Your task to perform on an android device: open wifi settings Image 0: 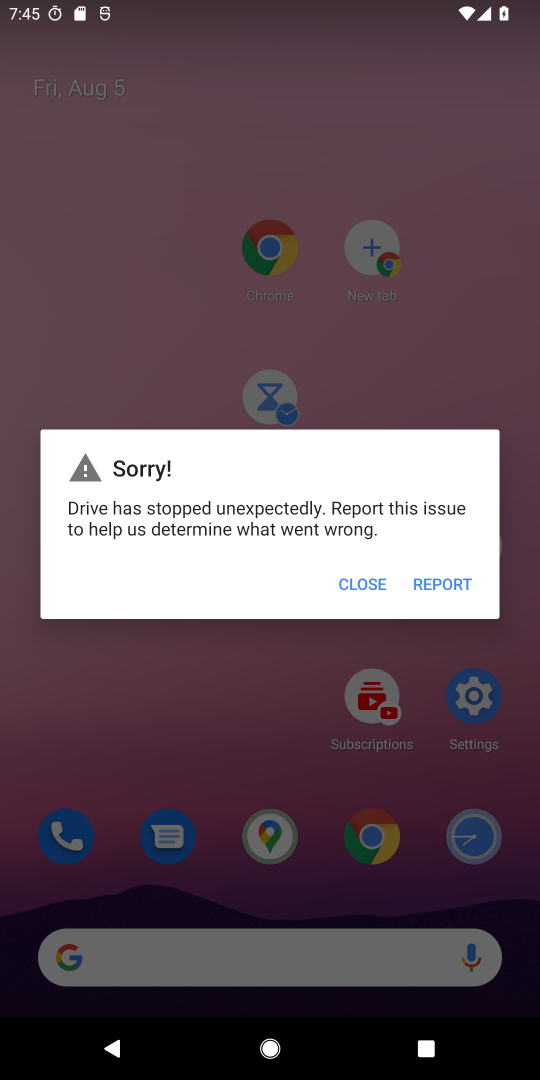
Step 0: click (349, 584)
Your task to perform on an android device: open wifi settings Image 1: 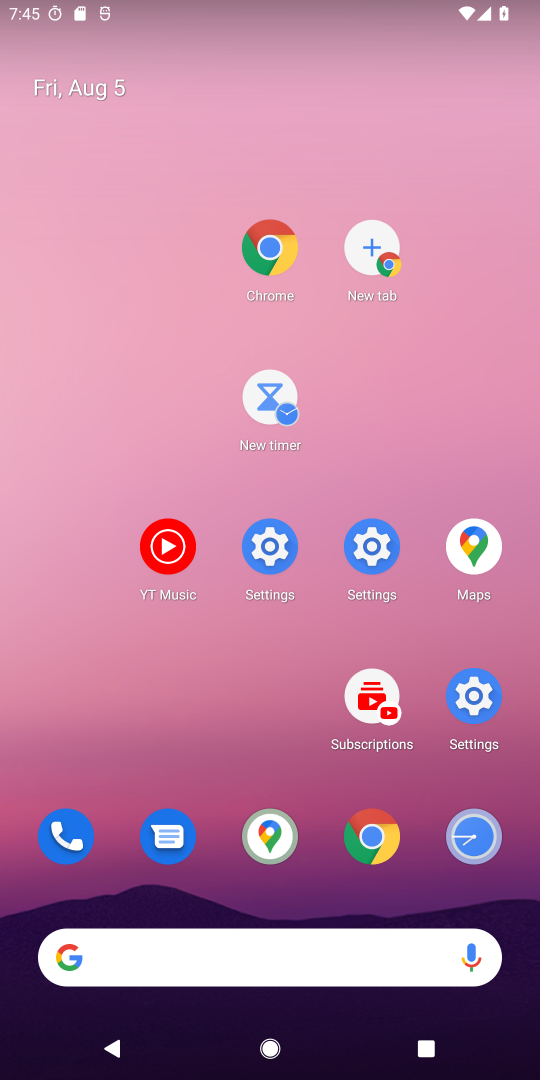
Step 1: drag from (236, 51) to (245, 323)
Your task to perform on an android device: open wifi settings Image 2: 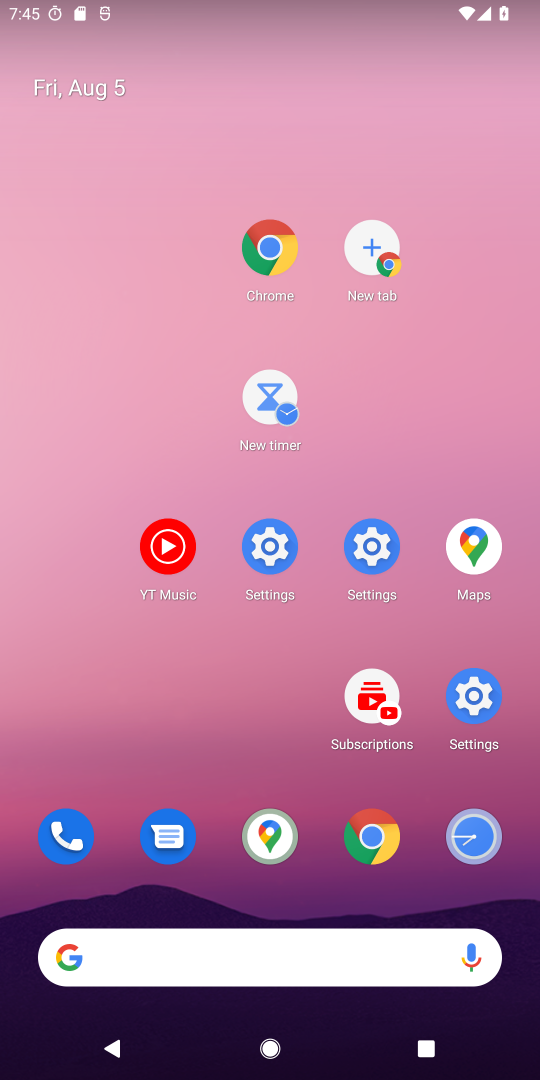
Step 2: drag from (378, 948) to (239, 262)
Your task to perform on an android device: open wifi settings Image 3: 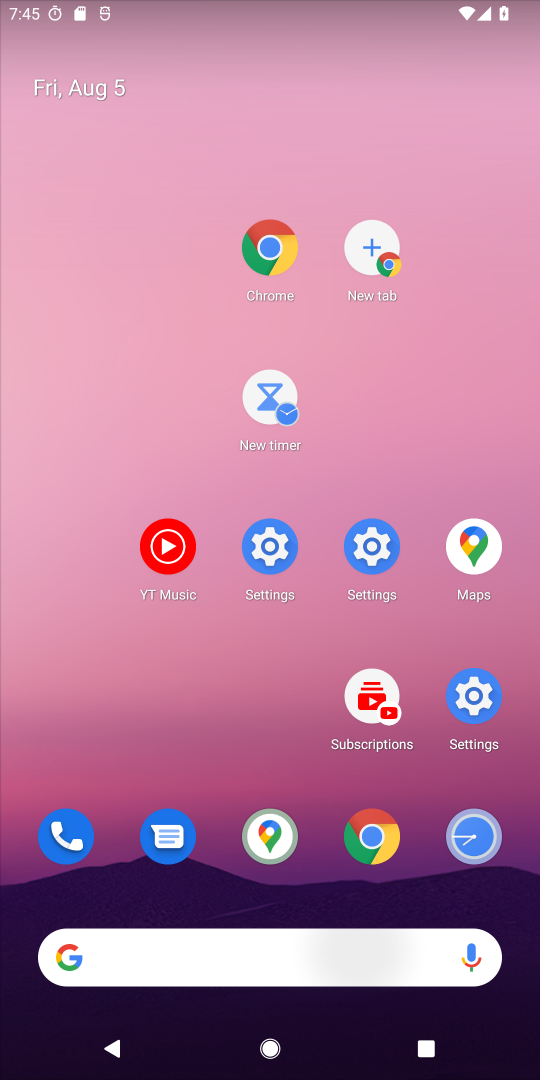
Step 3: drag from (249, 255) to (226, 106)
Your task to perform on an android device: open wifi settings Image 4: 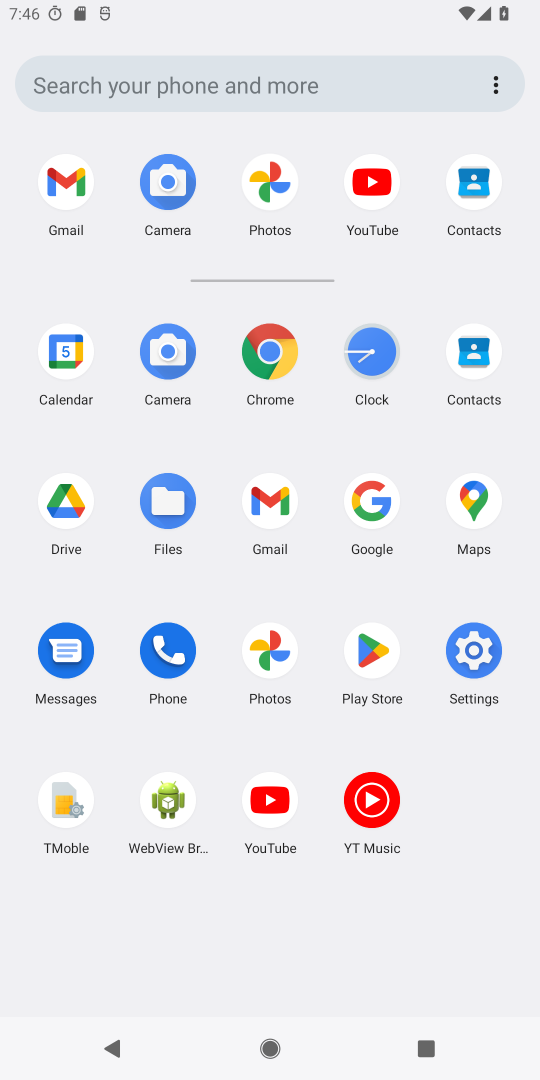
Step 4: drag from (302, 602) to (271, 197)
Your task to perform on an android device: open wifi settings Image 5: 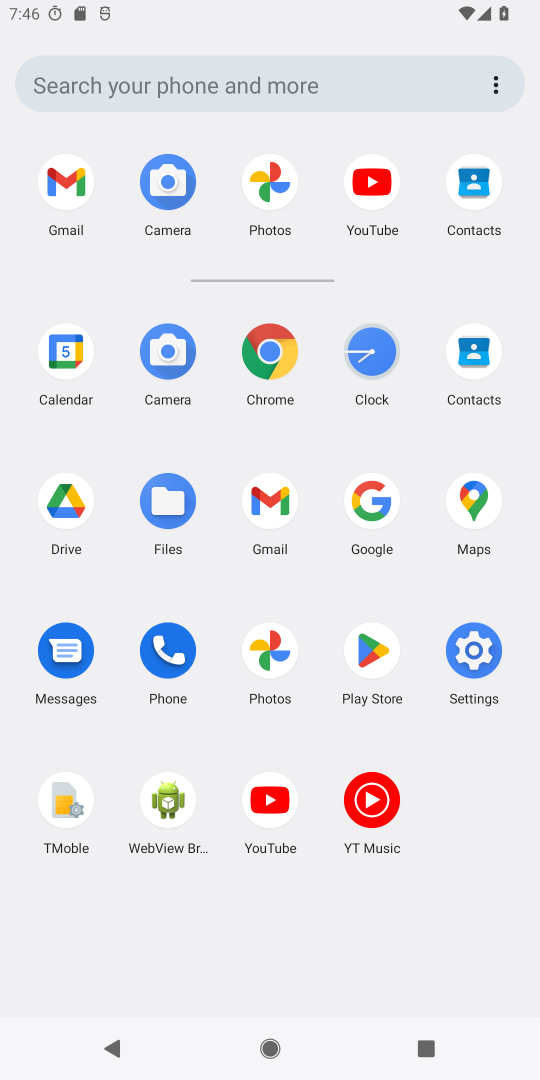
Step 5: click (482, 645)
Your task to perform on an android device: open wifi settings Image 6: 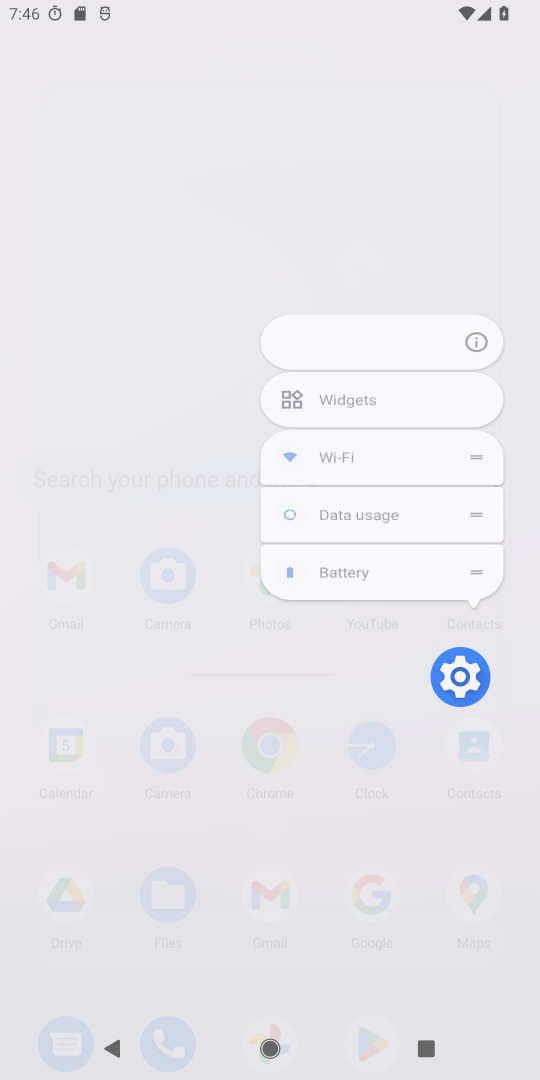
Step 6: click (467, 668)
Your task to perform on an android device: open wifi settings Image 7: 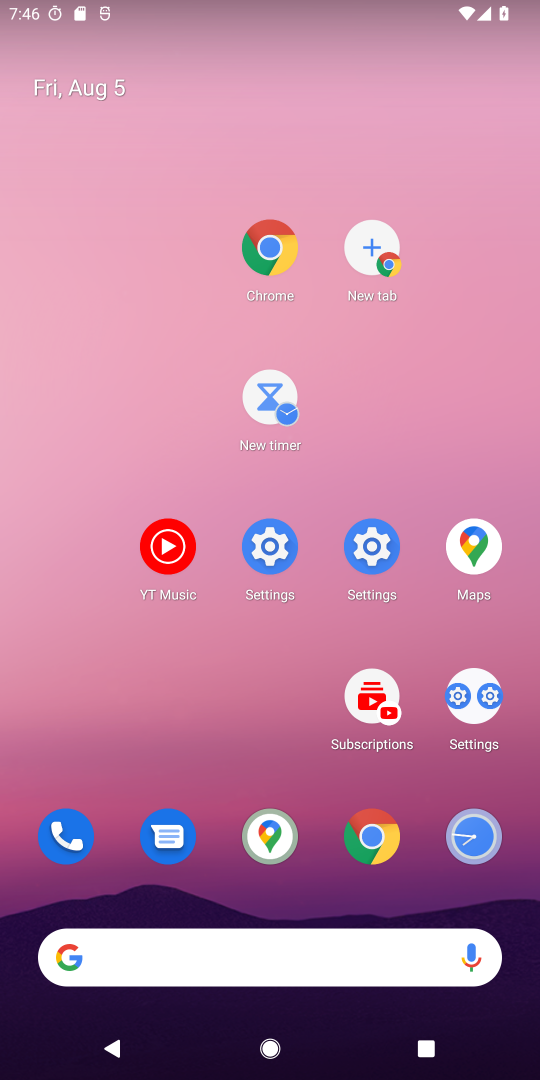
Step 7: drag from (441, 902) to (334, 165)
Your task to perform on an android device: open wifi settings Image 8: 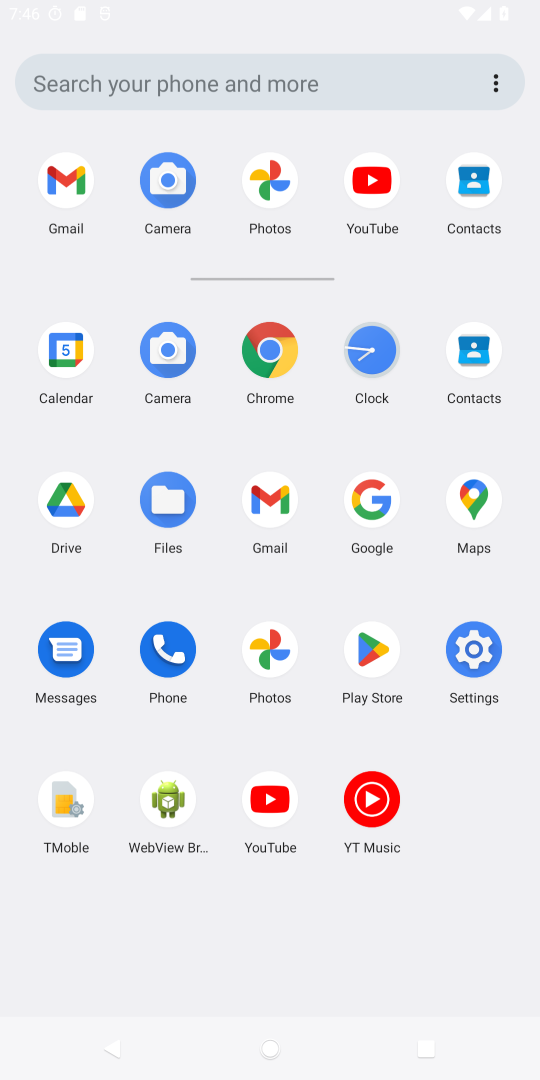
Step 8: drag from (367, 681) to (272, 137)
Your task to perform on an android device: open wifi settings Image 9: 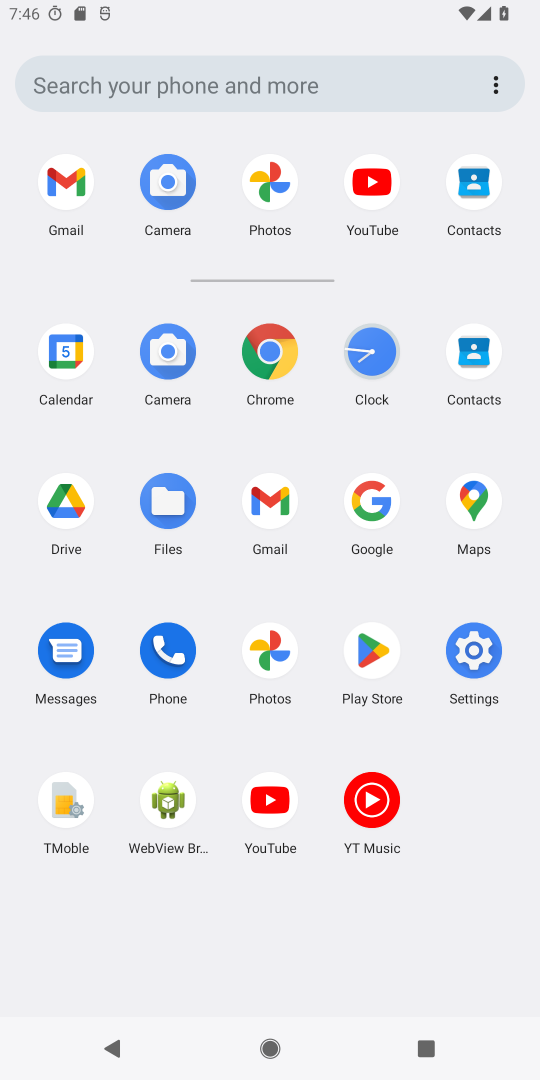
Step 9: drag from (330, 738) to (235, 195)
Your task to perform on an android device: open wifi settings Image 10: 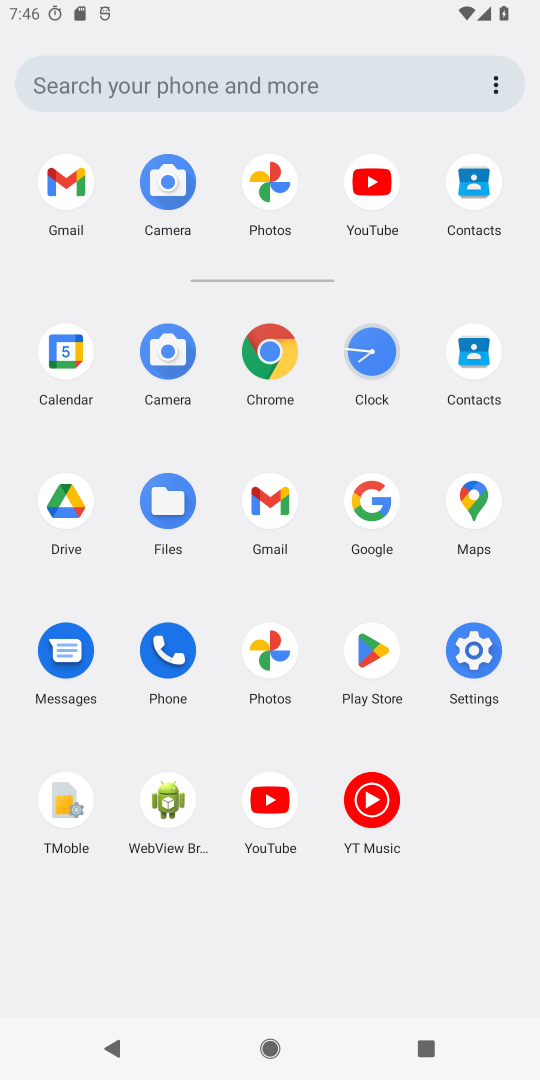
Step 10: click (474, 661)
Your task to perform on an android device: open wifi settings Image 11: 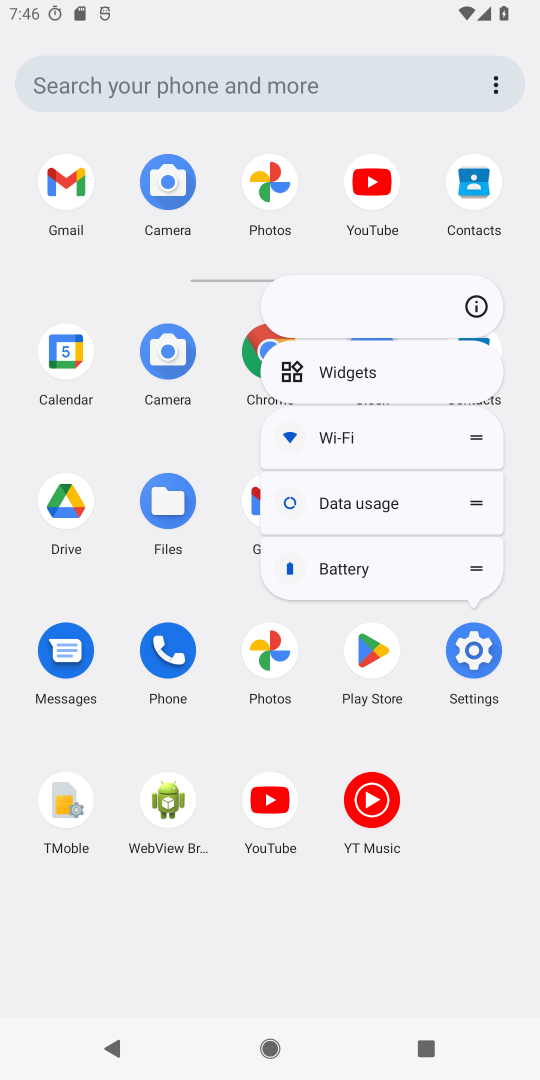
Step 11: click (474, 661)
Your task to perform on an android device: open wifi settings Image 12: 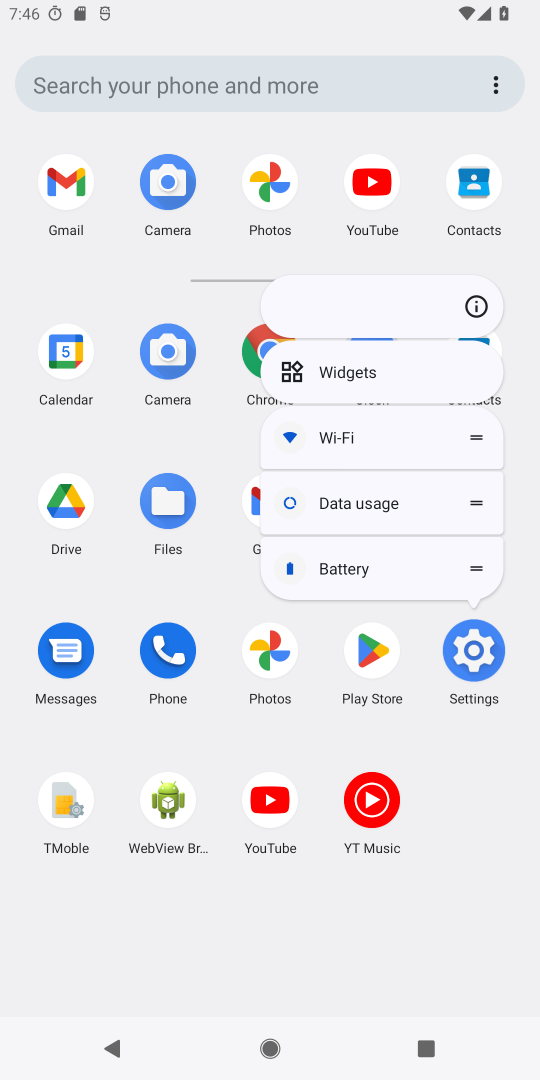
Step 12: click (474, 661)
Your task to perform on an android device: open wifi settings Image 13: 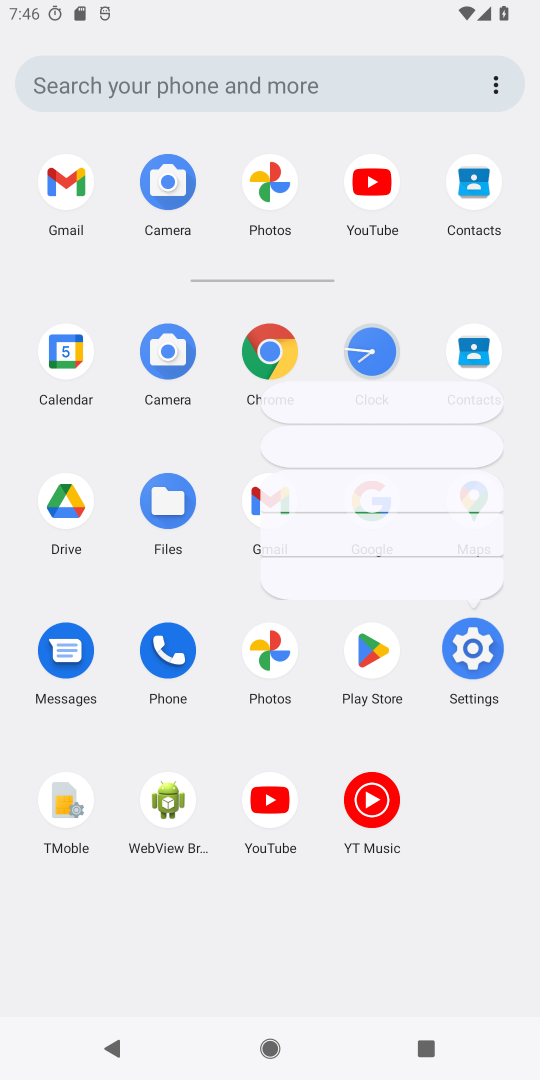
Step 13: click (473, 659)
Your task to perform on an android device: open wifi settings Image 14: 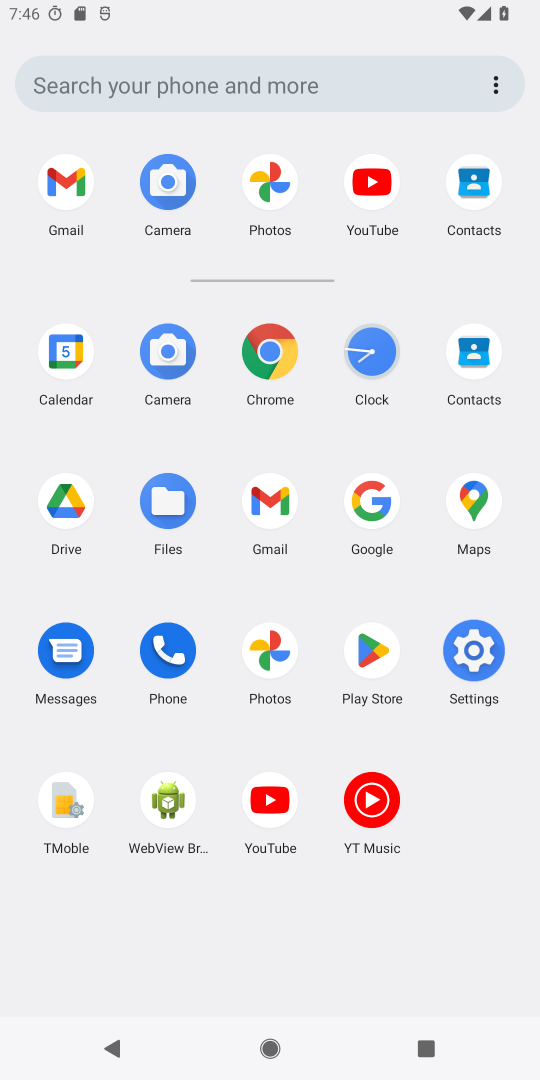
Step 14: click (473, 659)
Your task to perform on an android device: open wifi settings Image 15: 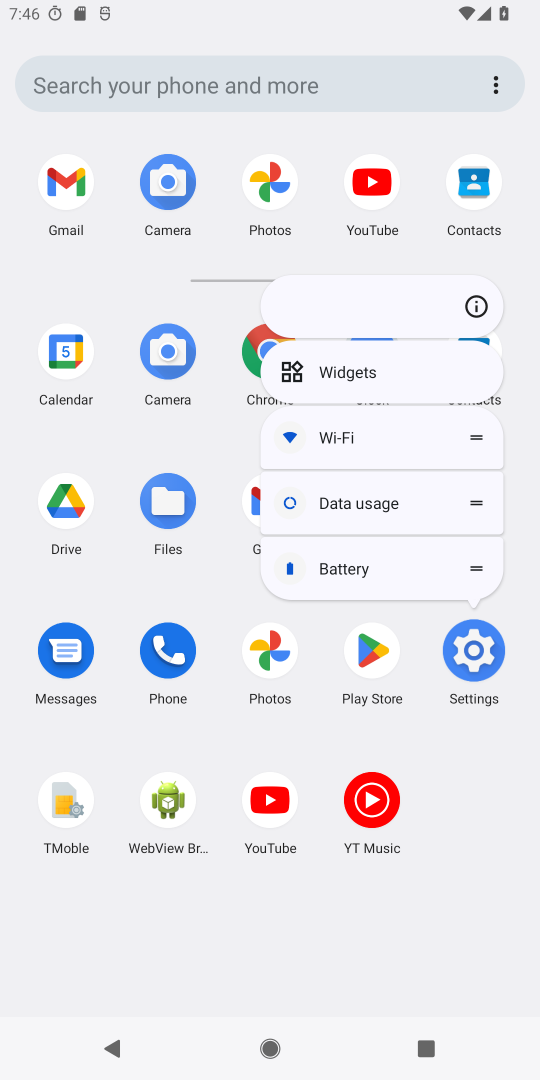
Step 15: click (473, 659)
Your task to perform on an android device: open wifi settings Image 16: 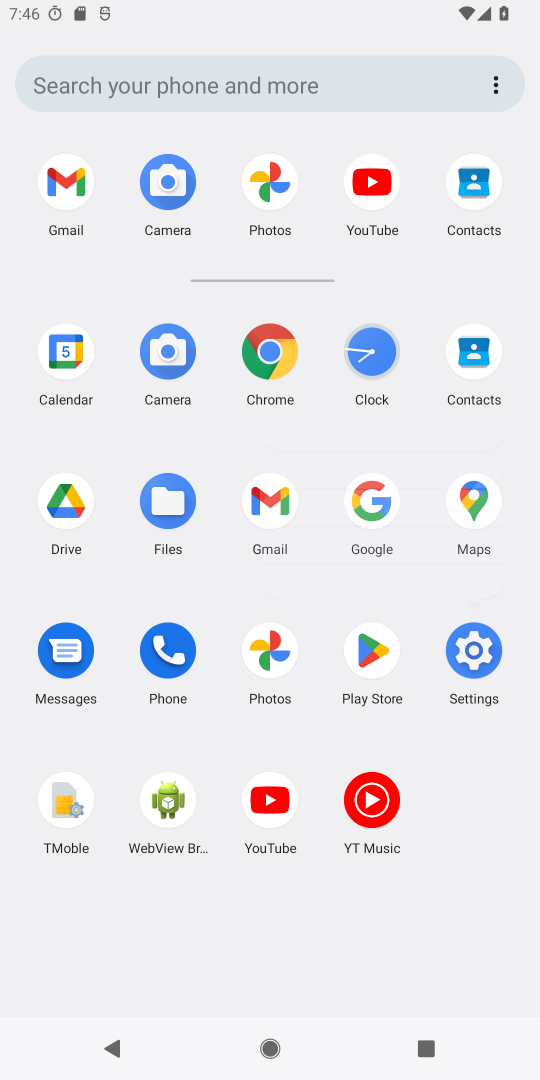
Step 16: click (473, 661)
Your task to perform on an android device: open wifi settings Image 17: 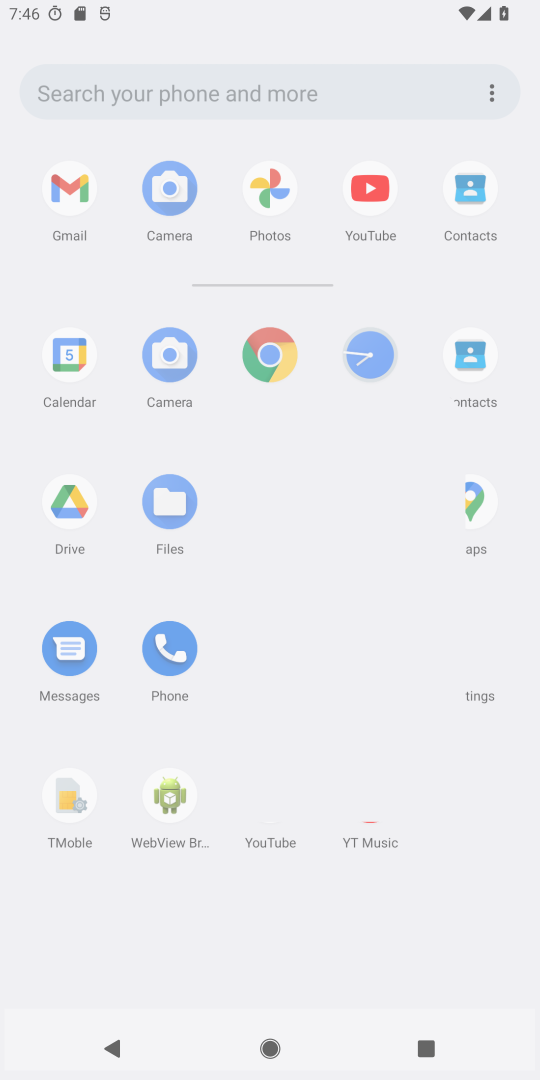
Step 17: click (478, 657)
Your task to perform on an android device: open wifi settings Image 18: 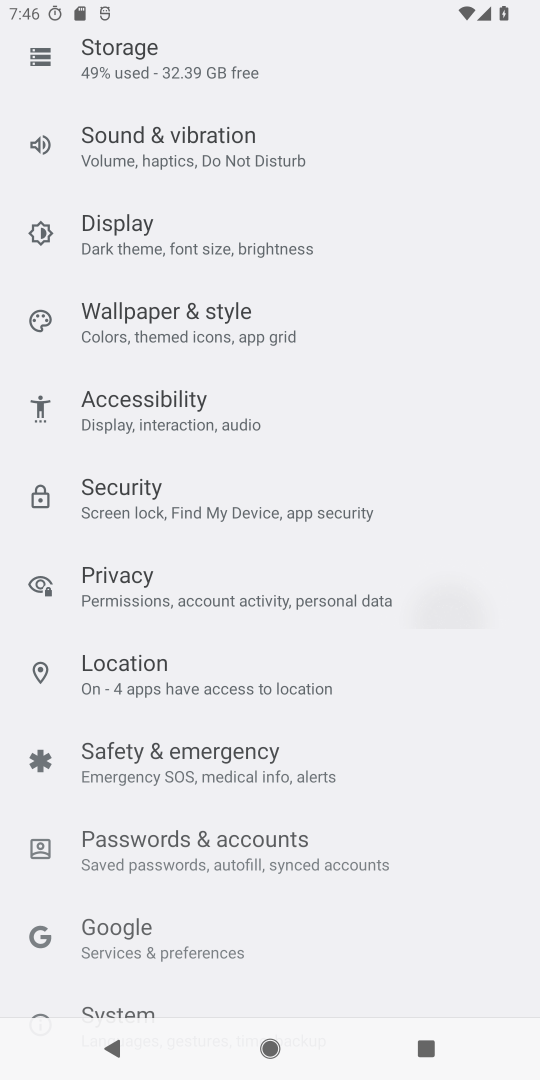
Step 18: click (478, 657)
Your task to perform on an android device: open wifi settings Image 19: 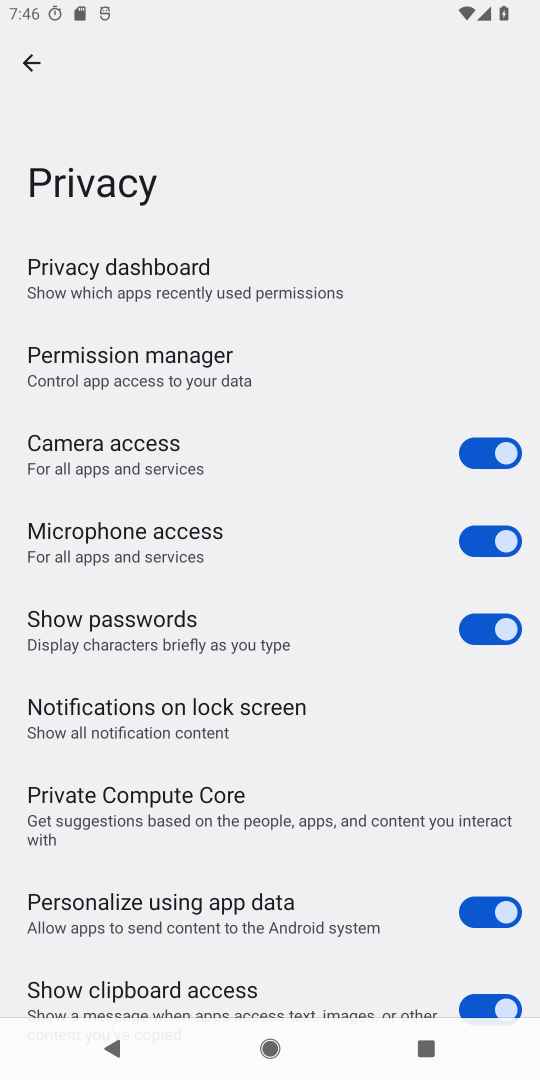
Step 19: click (24, 42)
Your task to perform on an android device: open wifi settings Image 20: 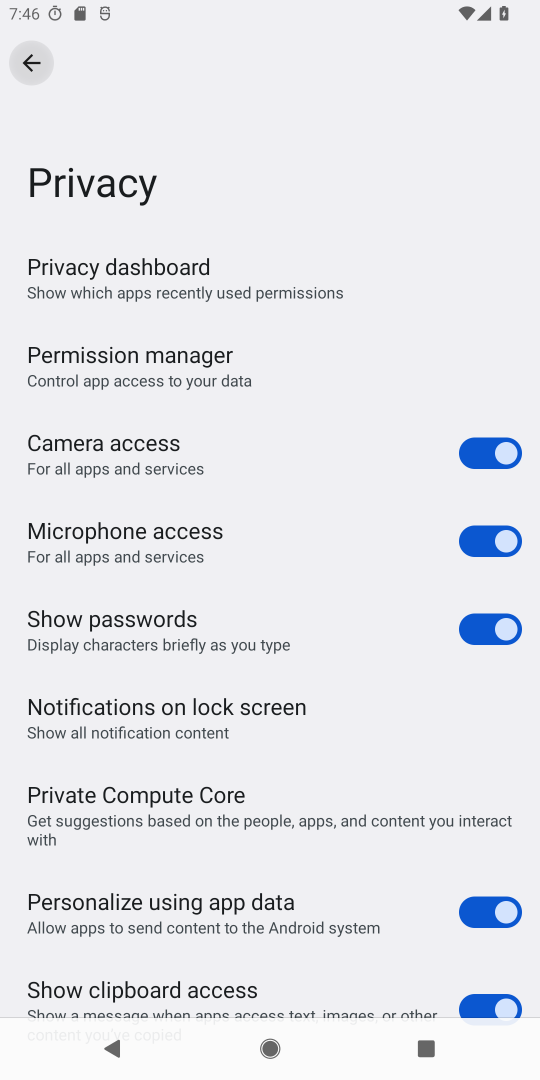
Step 20: click (14, 81)
Your task to perform on an android device: open wifi settings Image 21: 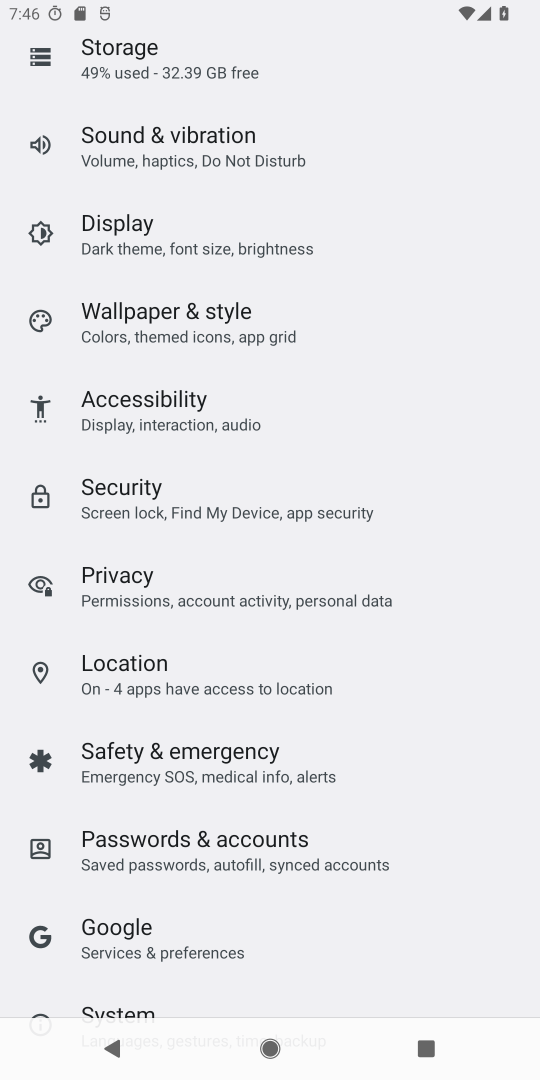
Step 21: drag from (183, 158) to (180, 808)
Your task to perform on an android device: open wifi settings Image 22: 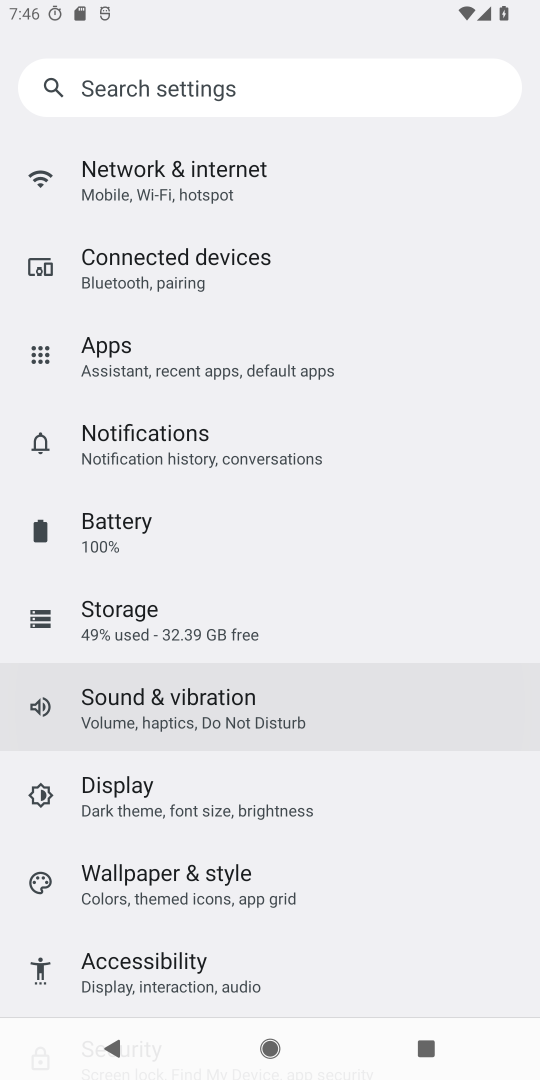
Step 22: drag from (210, 394) to (225, 720)
Your task to perform on an android device: open wifi settings Image 23: 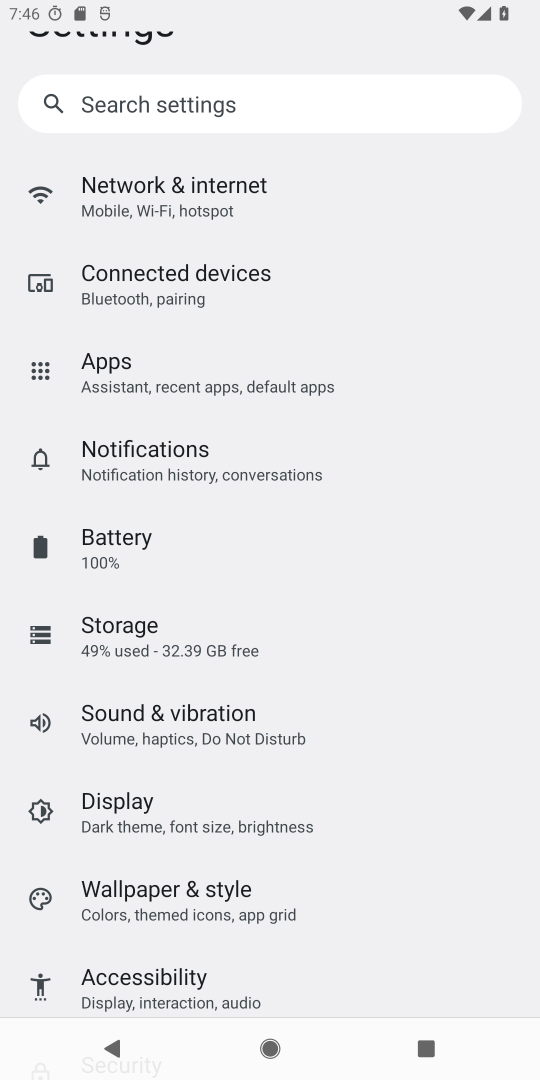
Step 23: click (137, 700)
Your task to perform on an android device: open wifi settings Image 24: 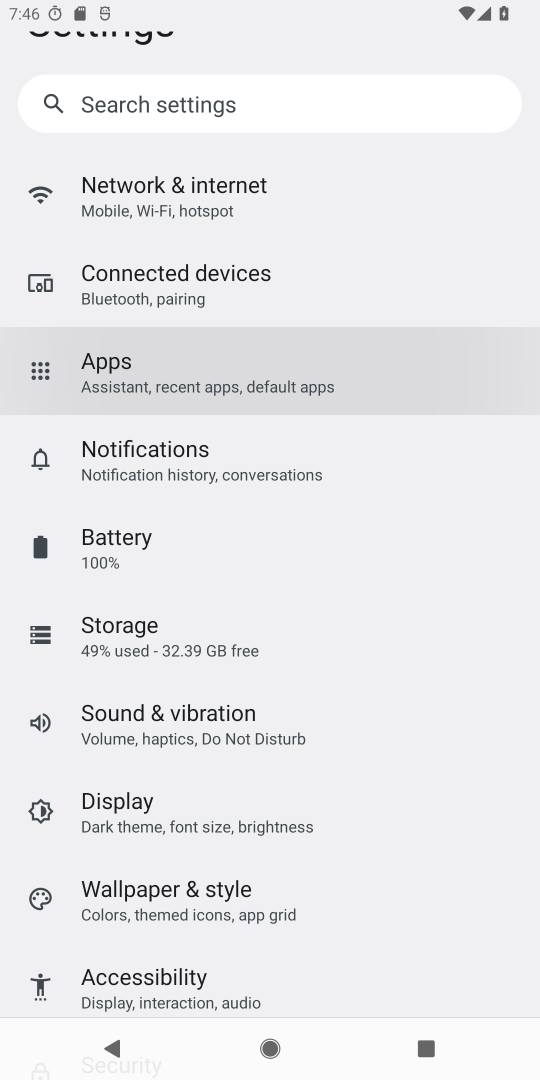
Step 24: click (162, 704)
Your task to perform on an android device: open wifi settings Image 25: 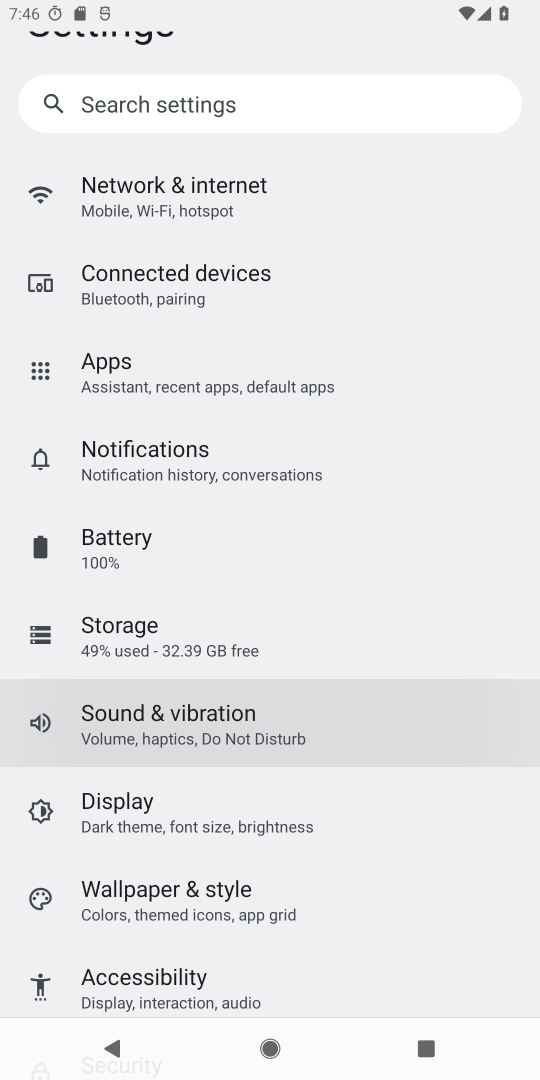
Step 25: click (186, 183)
Your task to perform on an android device: open wifi settings Image 26: 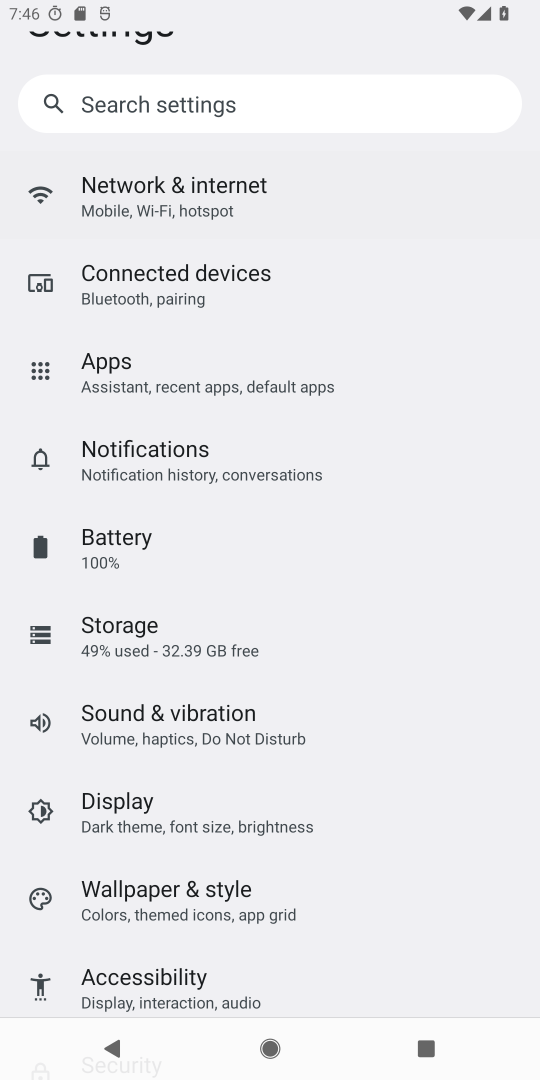
Step 26: click (186, 183)
Your task to perform on an android device: open wifi settings Image 27: 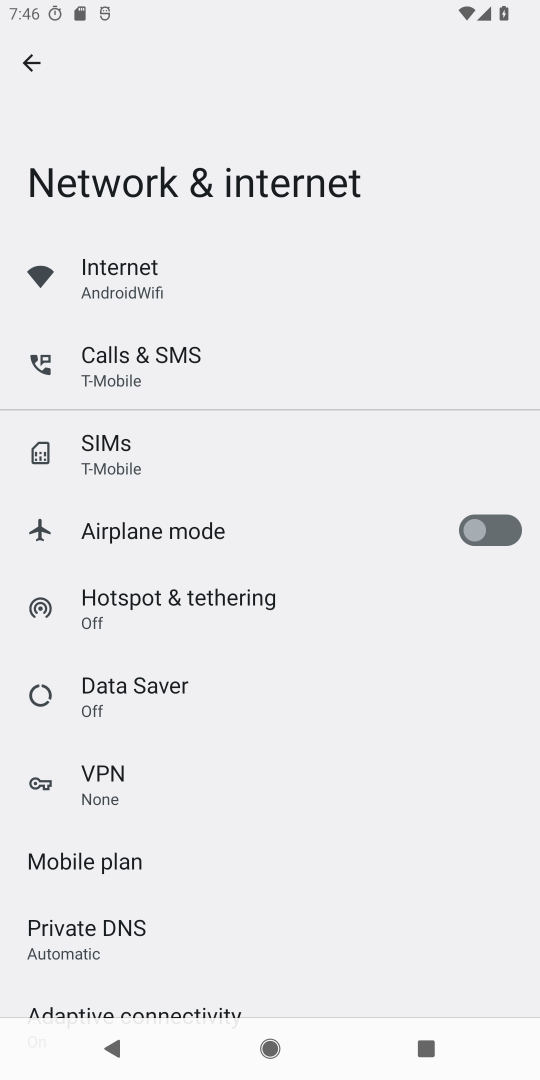
Step 27: click (206, 190)
Your task to perform on an android device: open wifi settings Image 28: 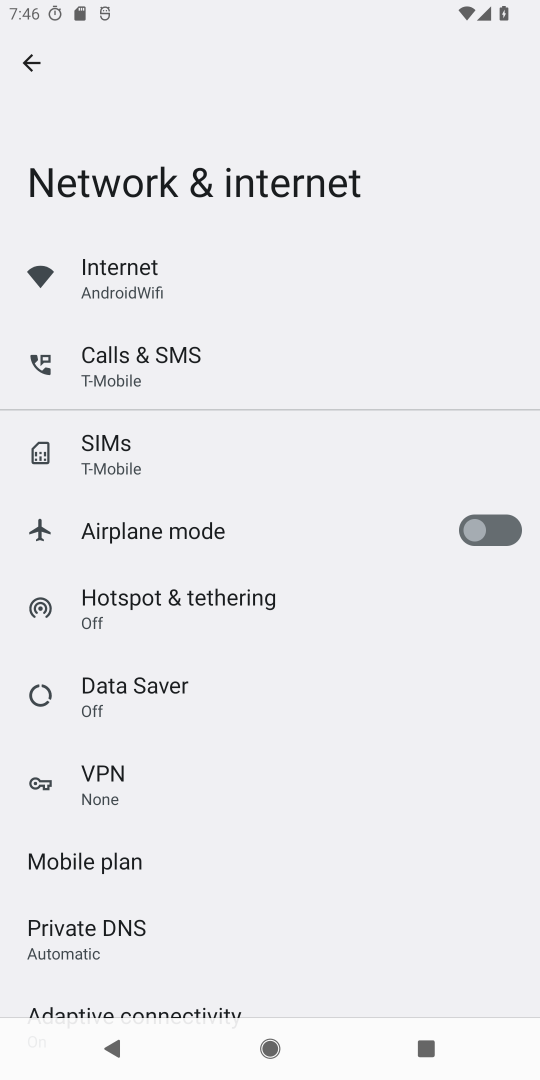
Step 28: click (128, 281)
Your task to perform on an android device: open wifi settings Image 29: 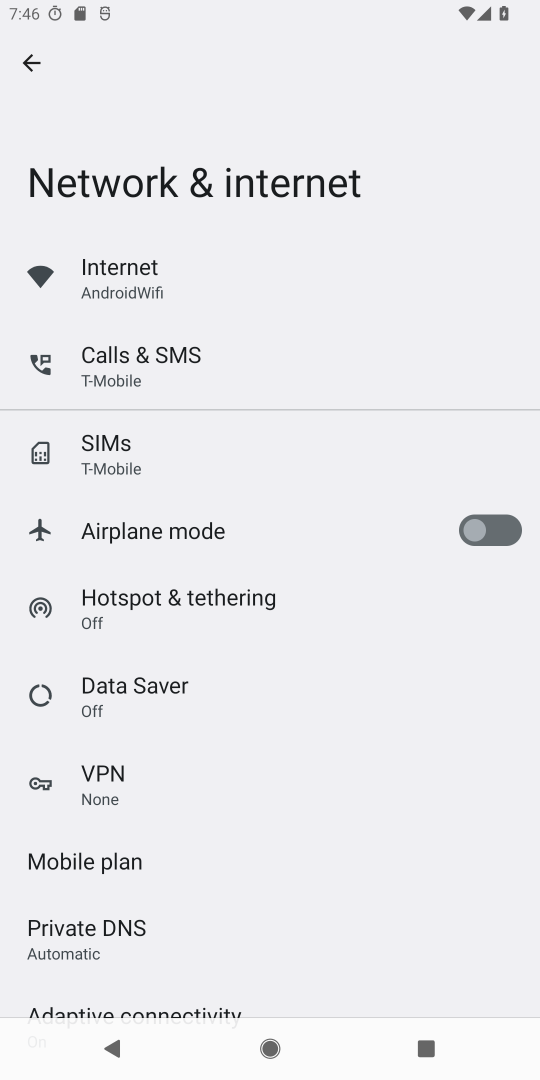
Step 29: click (132, 277)
Your task to perform on an android device: open wifi settings Image 30: 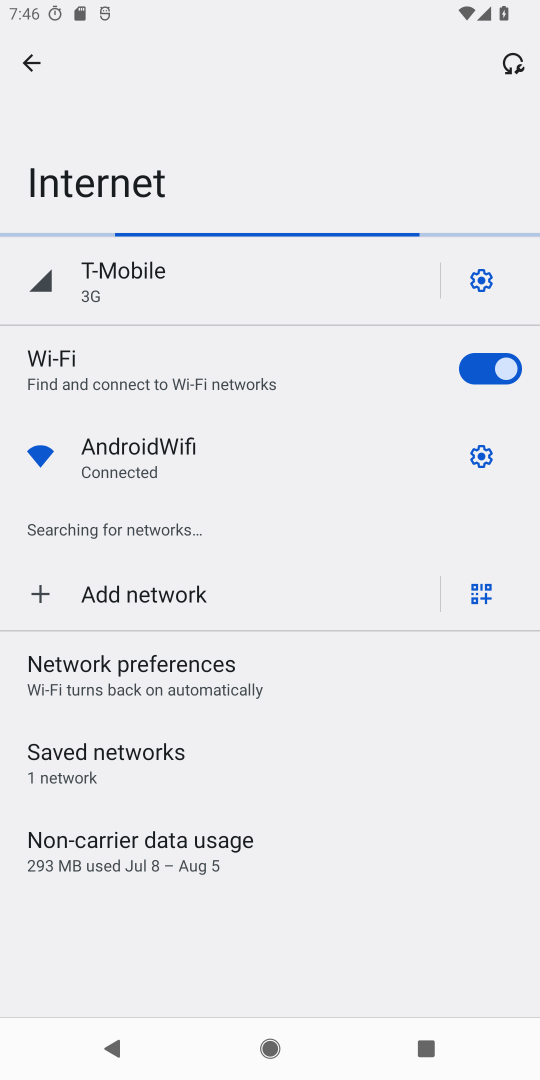
Step 30: task complete